Your task to perform on an android device: change notification settings in the gmail app Image 0: 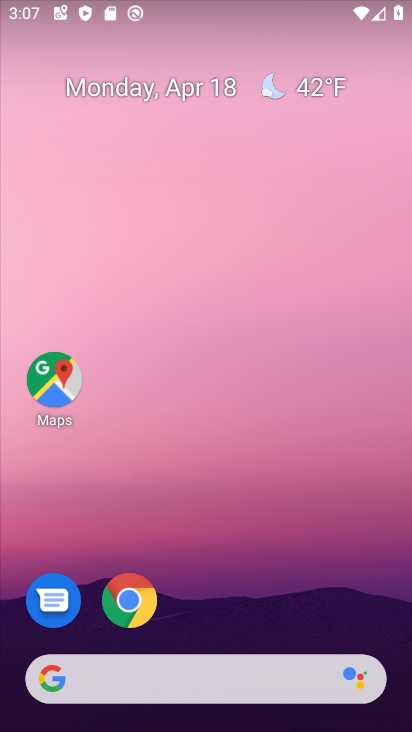
Step 0: drag from (115, 675) to (327, 95)
Your task to perform on an android device: change notification settings in the gmail app Image 1: 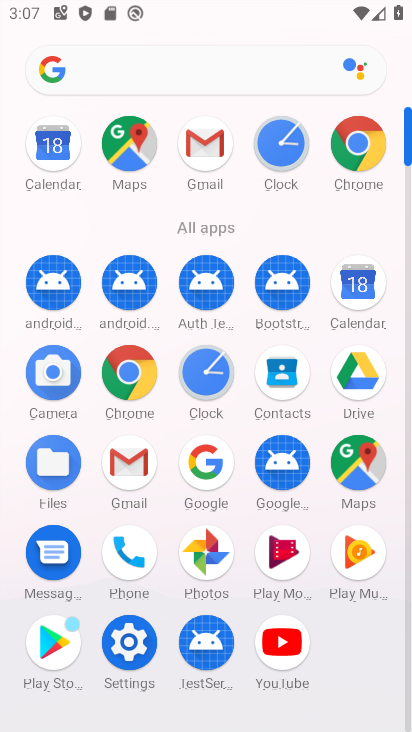
Step 1: click (194, 154)
Your task to perform on an android device: change notification settings in the gmail app Image 2: 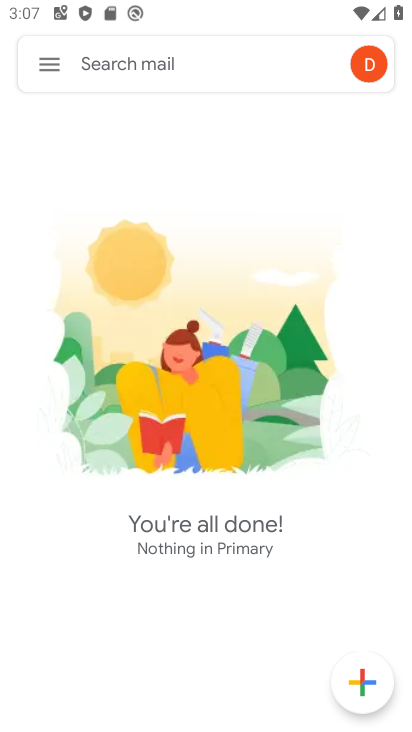
Step 2: click (49, 69)
Your task to perform on an android device: change notification settings in the gmail app Image 3: 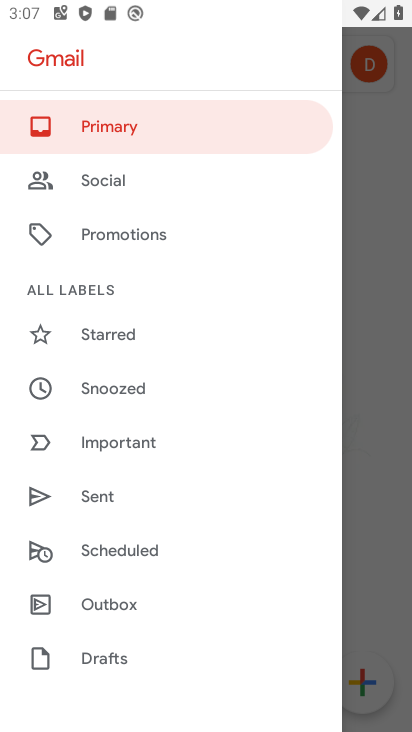
Step 3: drag from (166, 626) to (270, 122)
Your task to perform on an android device: change notification settings in the gmail app Image 4: 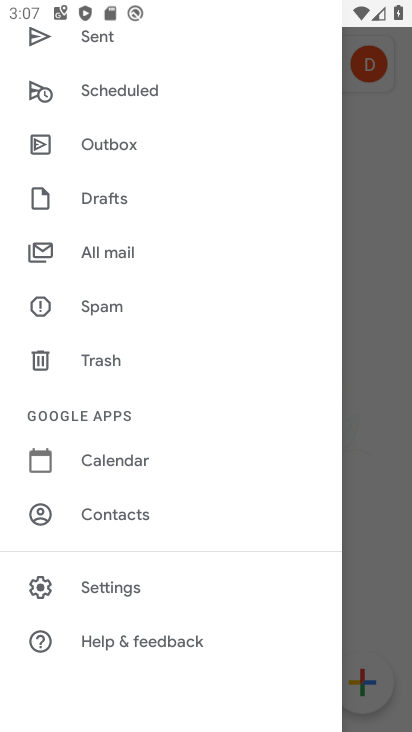
Step 4: click (127, 585)
Your task to perform on an android device: change notification settings in the gmail app Image 5: 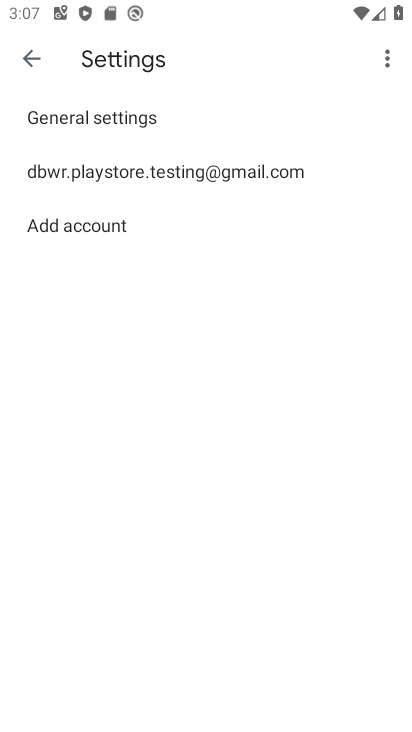
Step 5: click (249, 170)
Your task to perform on an android device: change notification settings in the gmail app Image 6: 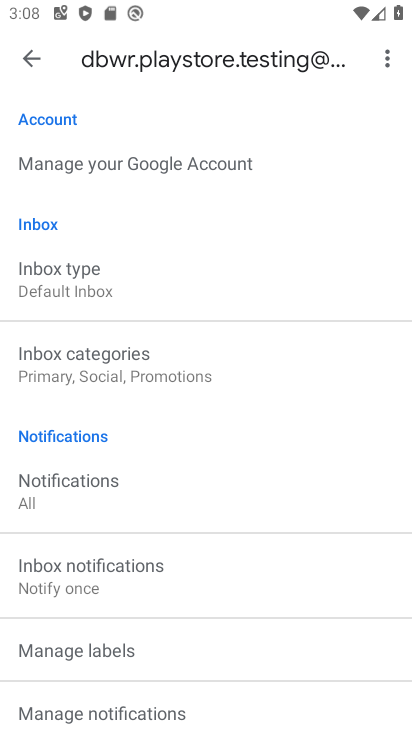
Step 6: click (89, 482)
Your task to perform on an android device: change notification settings in the gmail app Image 7: 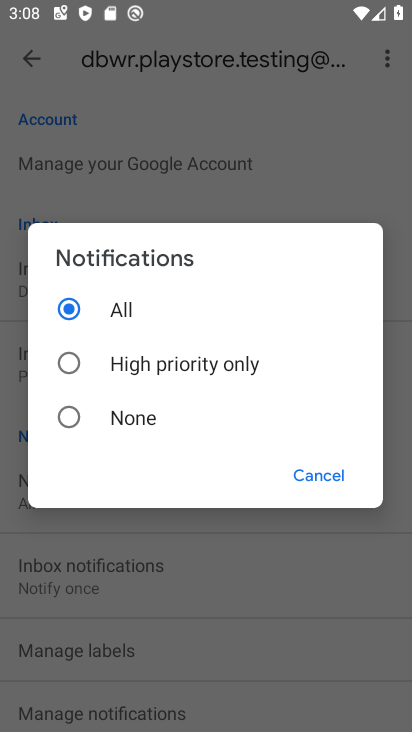
Step 7: click (69, 412)
Your task to perform on an android device: change notification settings in the gmail app Image 8: 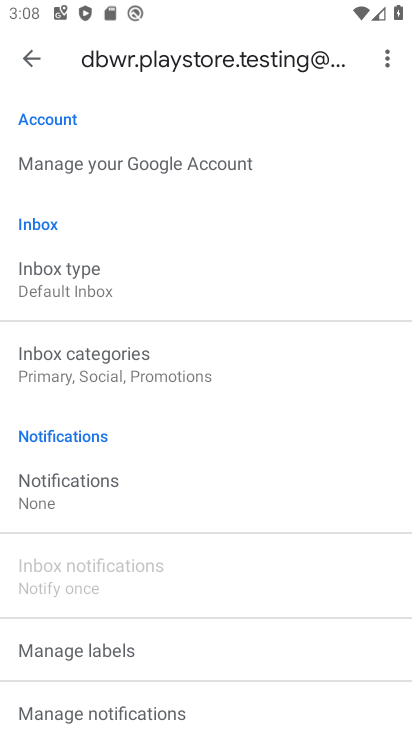
Step 8: task complete